Your task to perform on an android device: turn off improve location accuracy Image 0: 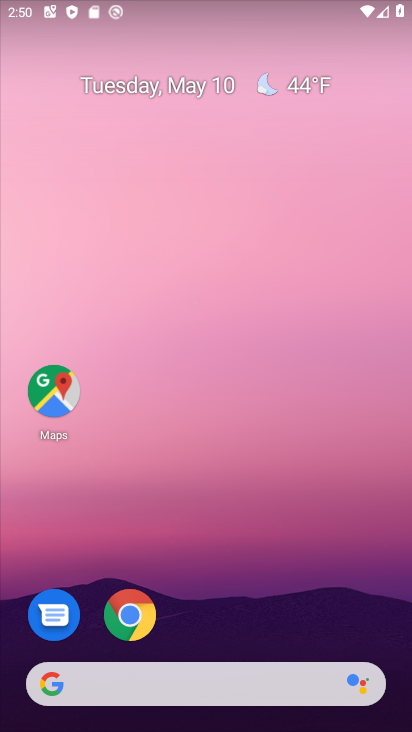
Step 0: drag from (219, 728) to (218, 299)
Your task to perform on an android device: turn off improve location accuracy Image 1: 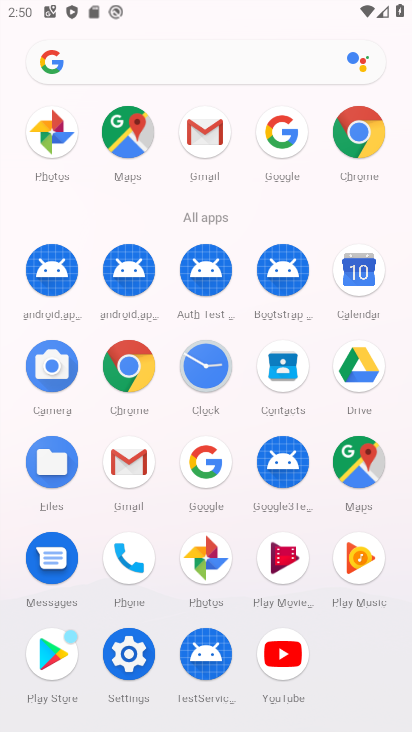
Step 1: click (133, 654)
Your task to perform on an android device: turn off improve location accuracy Image 2: 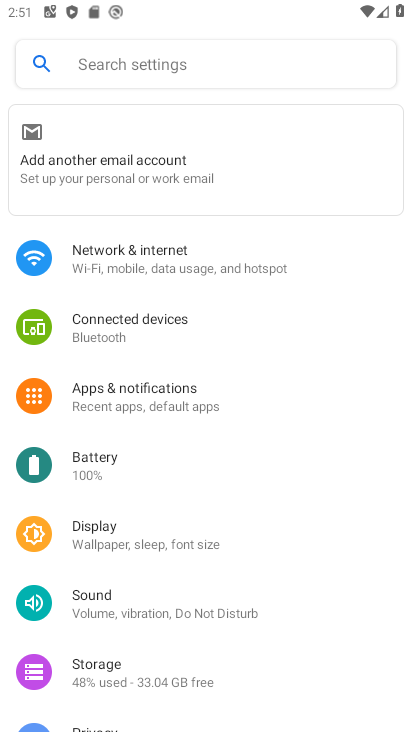
Step 2: drag from (147, 645) to (137, 280)
Your task to perform on an android device: turn off improve location accuracy Image 3: 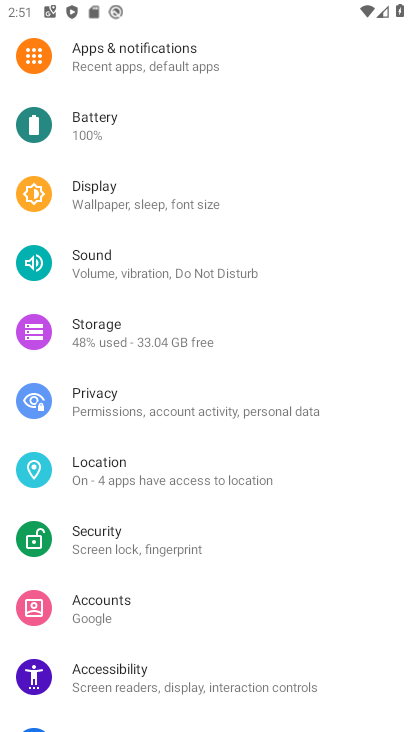
Step 3: click (96, 474)
Your task to perform on an android device: turn off improve location accuracy Image 4: 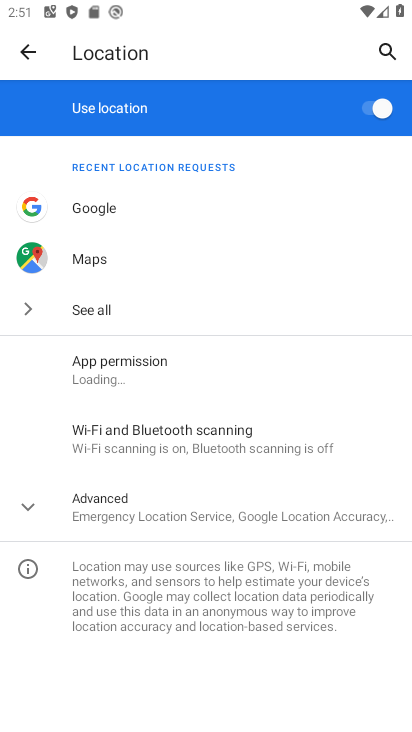
Step 4: click (108, 499)
Your task to perform on an android device: turn off improve location accuracy Image 5: 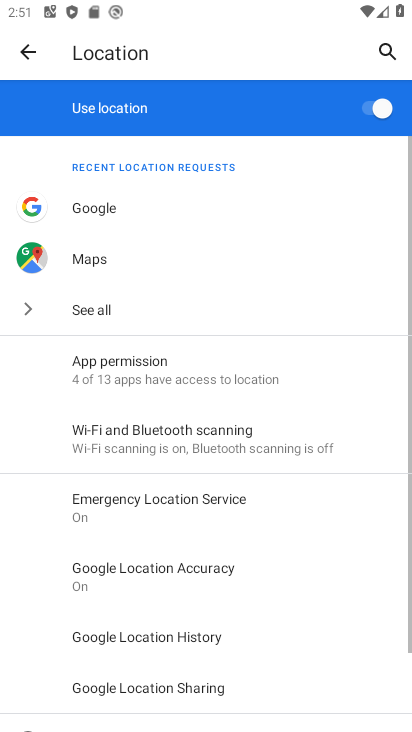
Step 5: click (174, 570)
Your task to perform on an android device: turn off improve location accuracy Image 6: 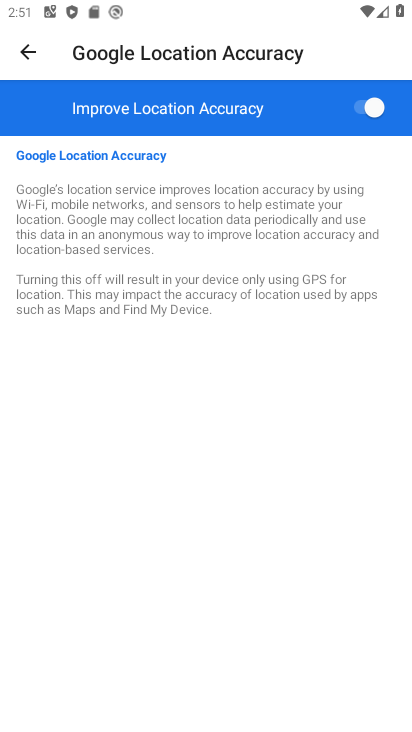
Step 6: click (360, 101)
Your task to perform on an android device: turn off improve location accuracy Image 7: 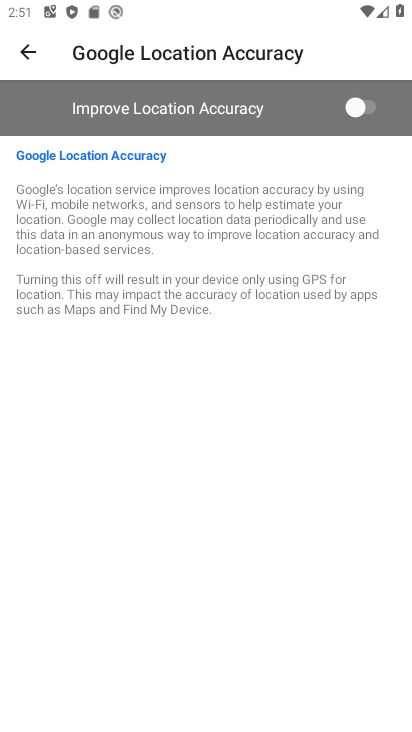
Step 7: task complete